Your task to perform on an android device: open sync settings in chrome Image 0: 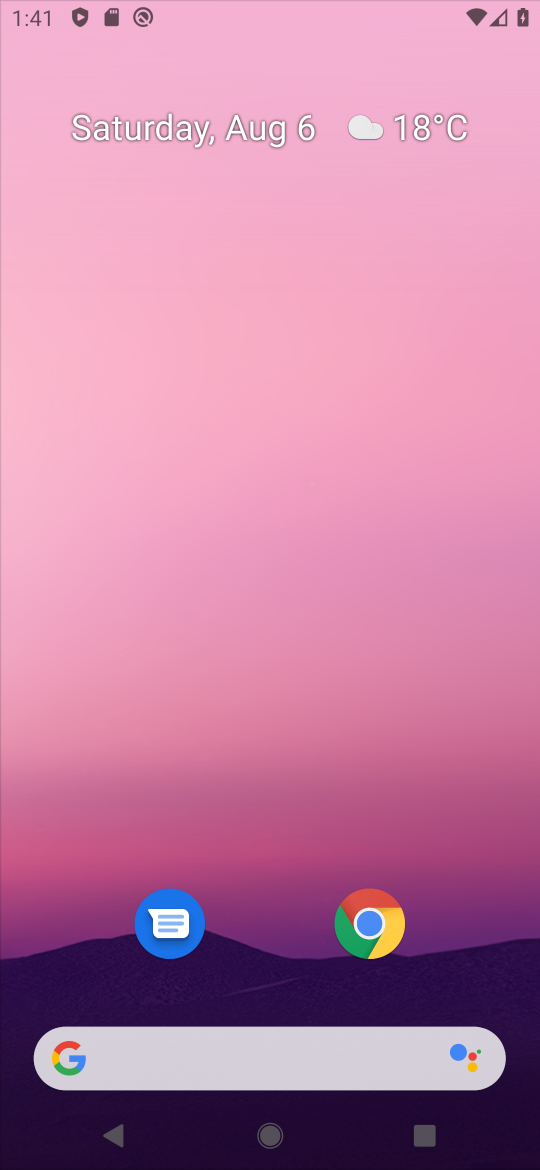
Step 0: click (293, 141)
Your task to perform on an android device: open sync settings in chrome Image 1: 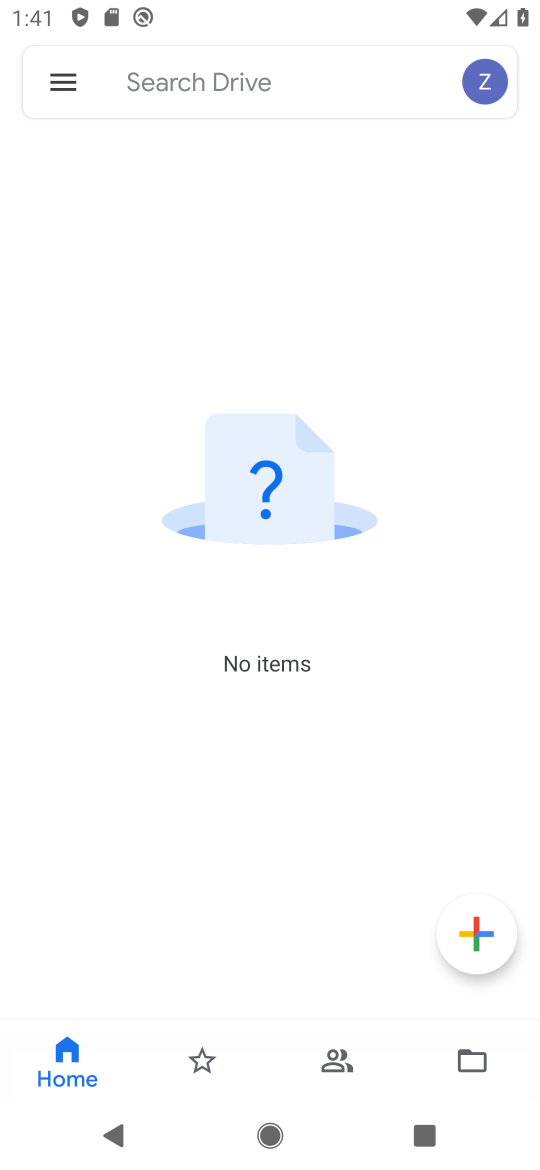
Step 1: drag from (276, 972) to (364, 310)
Your task to perform on an android device: open sync settings in chrome Image 2: 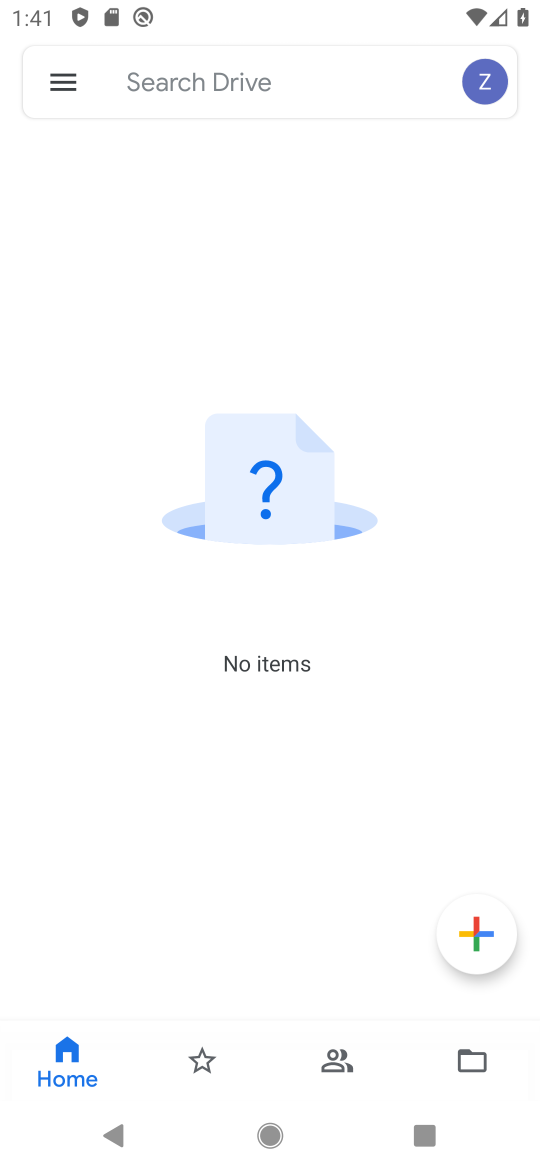
Step 2: press home button
Your task to perform on an android device: open sync settings in chrome Image 3: 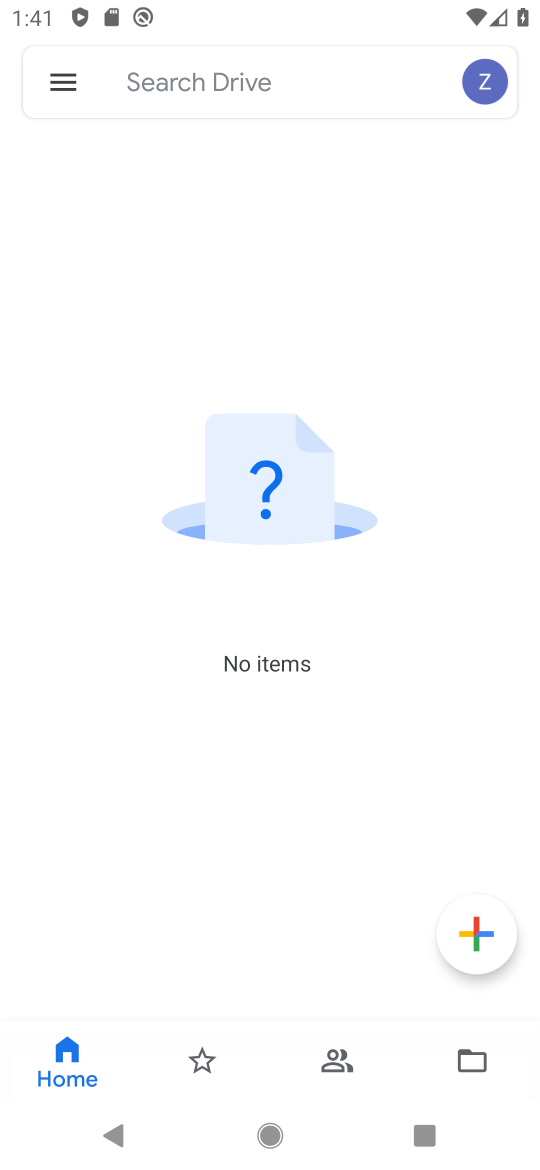
Step 3: drag from (260, 785) to (286, 134)
Your task to perform on an android device: open sync settings in chrome Image 4: 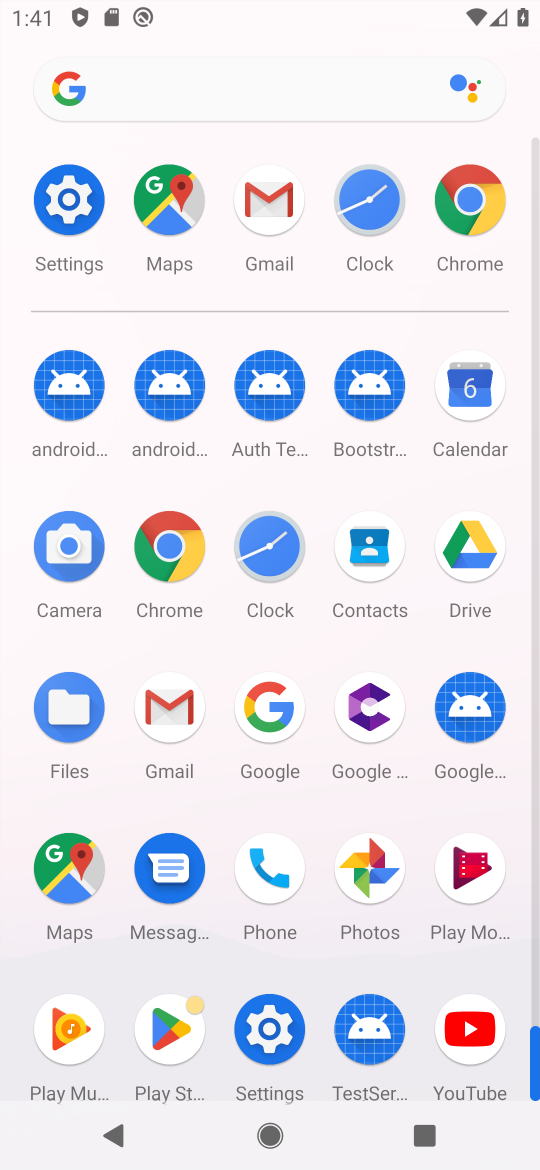
Step 4: click (183, 541)
Your task to perform on an android device: open sync settings in chrome Image 5: 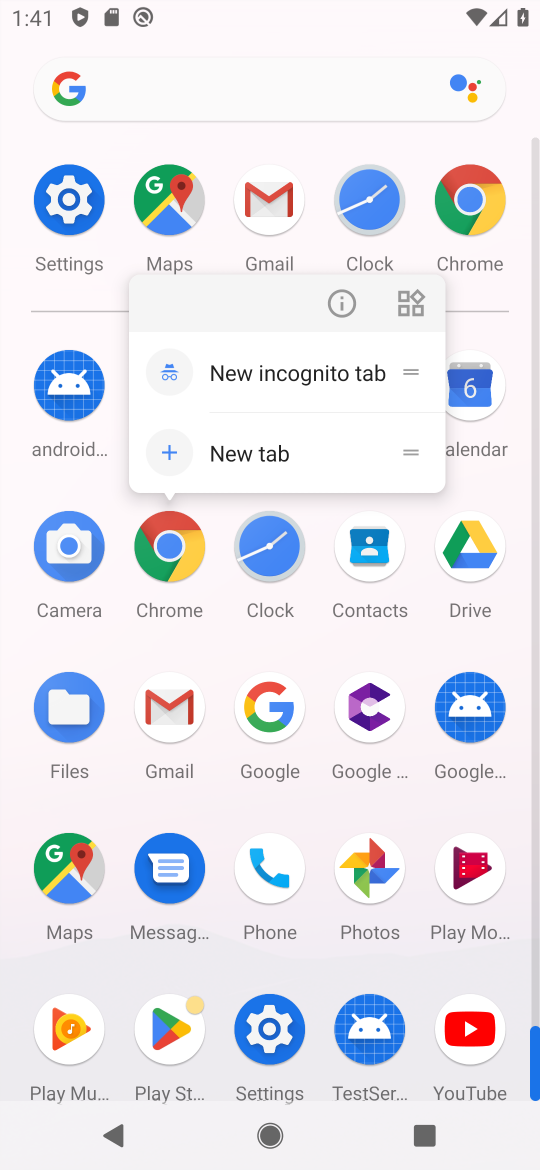
Step 5: click (342, 299)
Your task to perform on an android device: open sync settings in chrome Image 6: 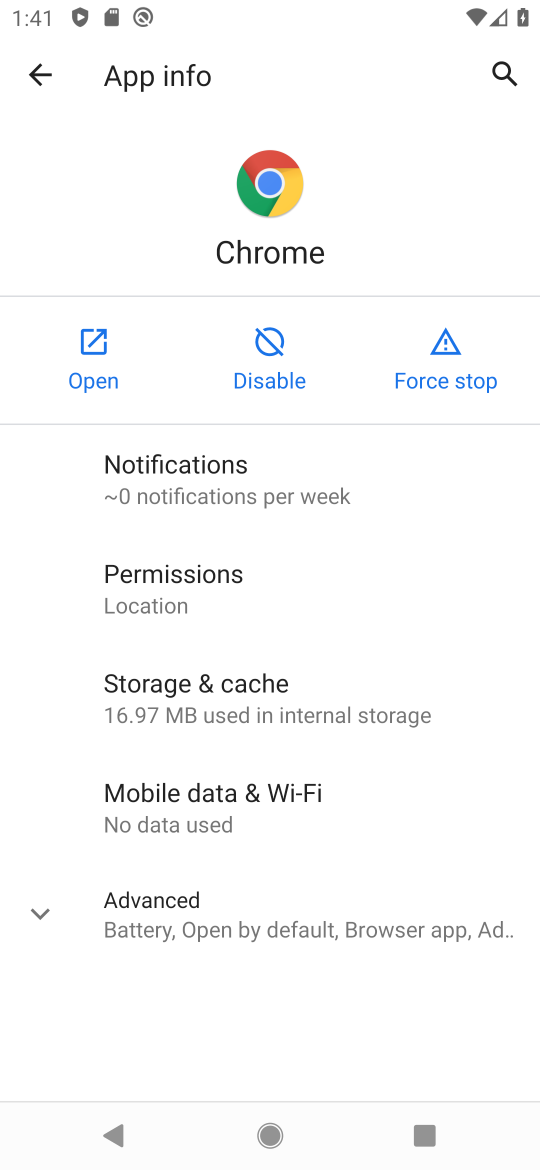
Step 6: click (116, 354)
Your task to perform on an android device: open sync settings in chrome Image 7: 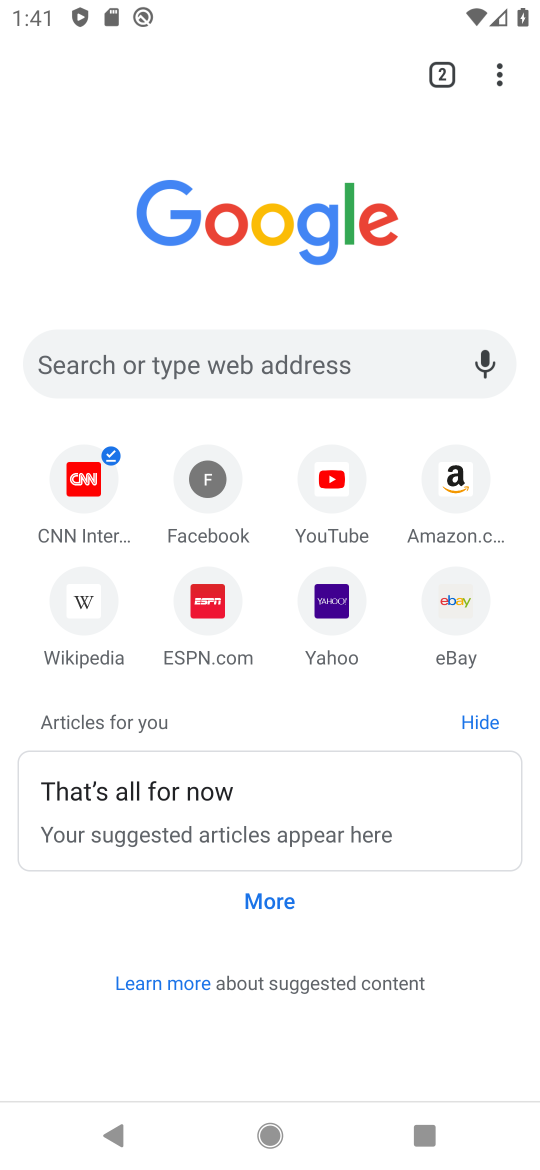
Step 7: drag from (496, 70) to (291, 705)
Your task to perform on an android device: open sync settings in chrome Image 8: 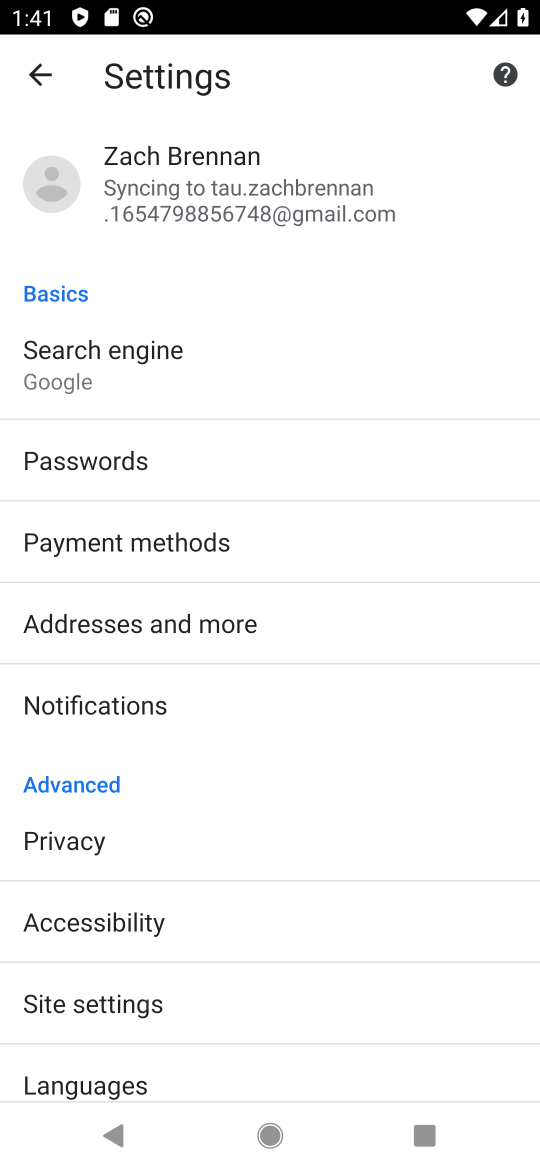
Step 8: drag from (314, 1024) to (283, 485)
Your task to perform on an android device: open sync settings in chrome Image 9: 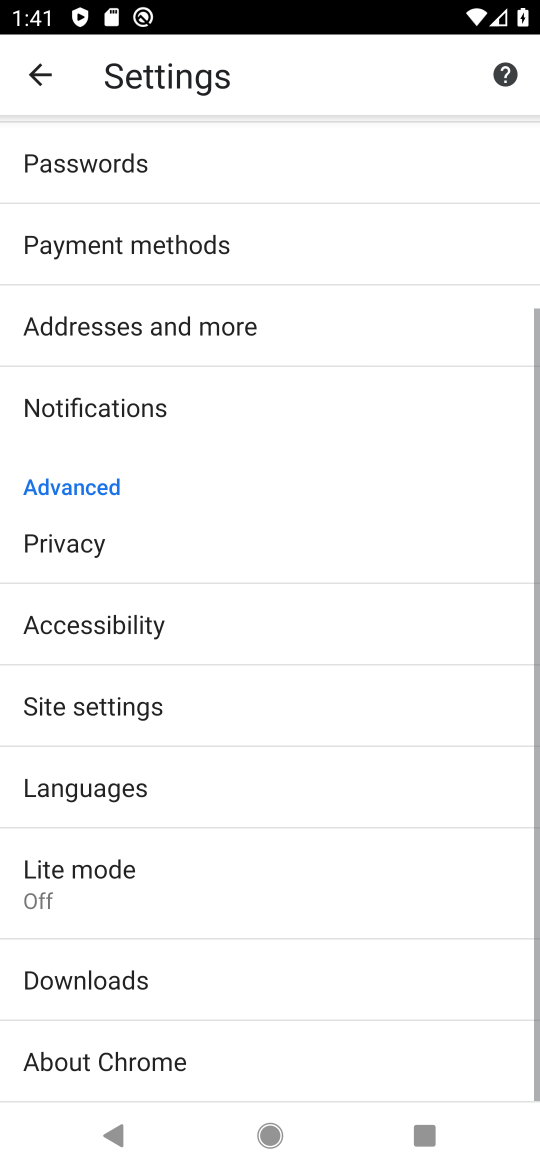
Step 9: drag from (251, 982) to (296, 356)
Your task to perform on an android device: open sync settings in chrome Image 10: 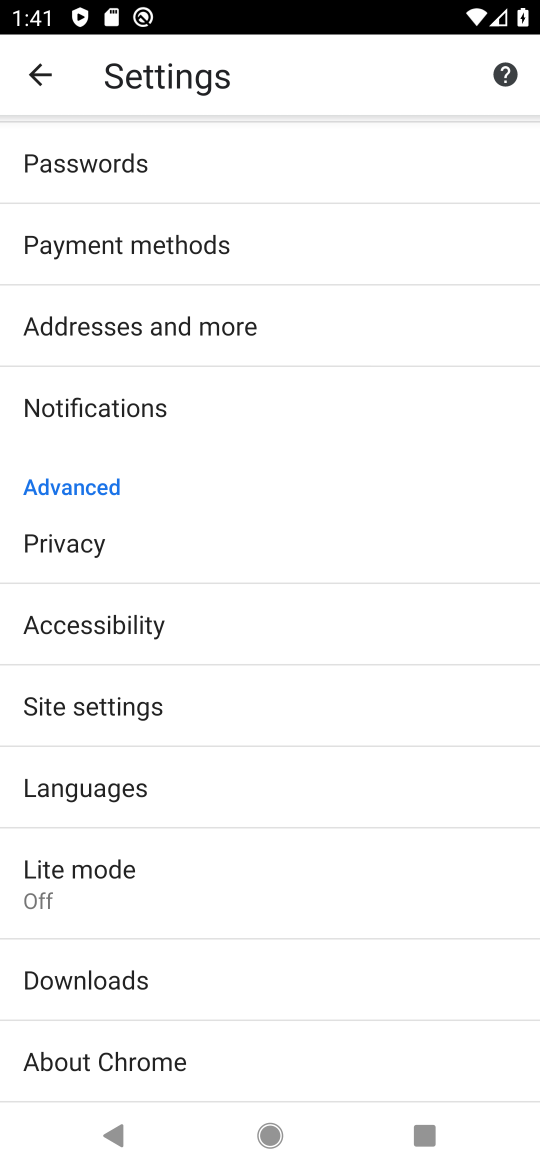
Step 10: click (221, 727)
Your task to perform on an android device: open sync settings in chrome Image 11: 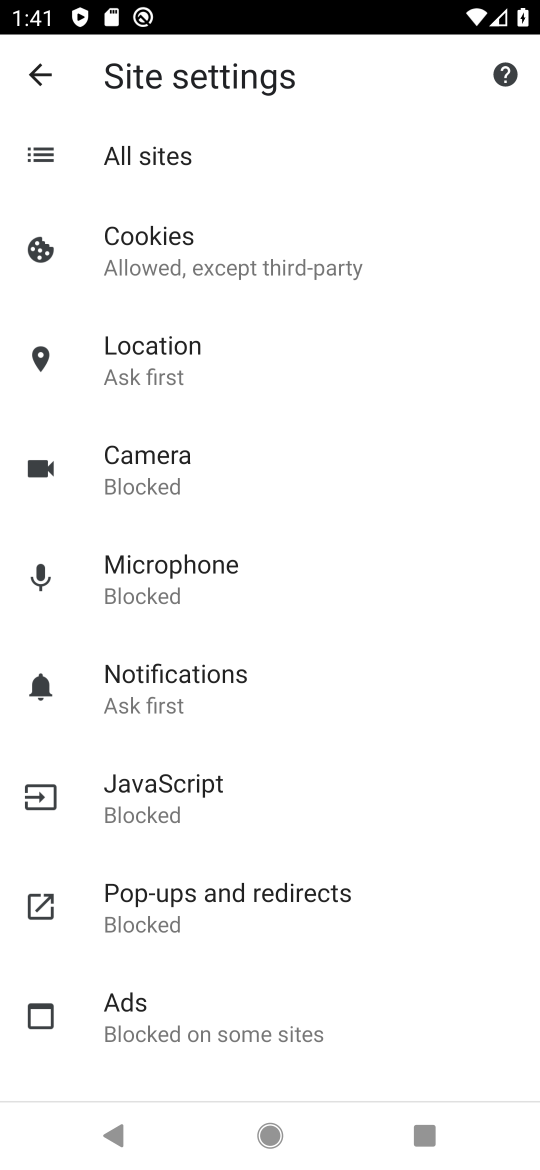
Step 11: drag from (279, 758) to (345, 144)
Your task to perform on an android device: open sync settings in chrome Image 12: 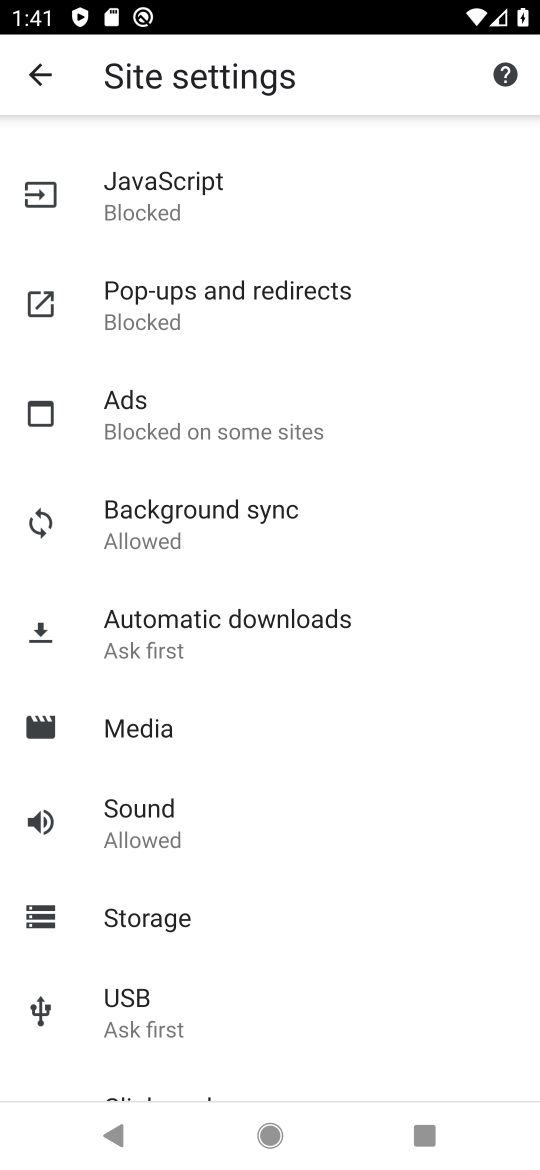
Step 12: click (291, 532)
Your task to perform on an android device: open sync settings in chrome Image 13: 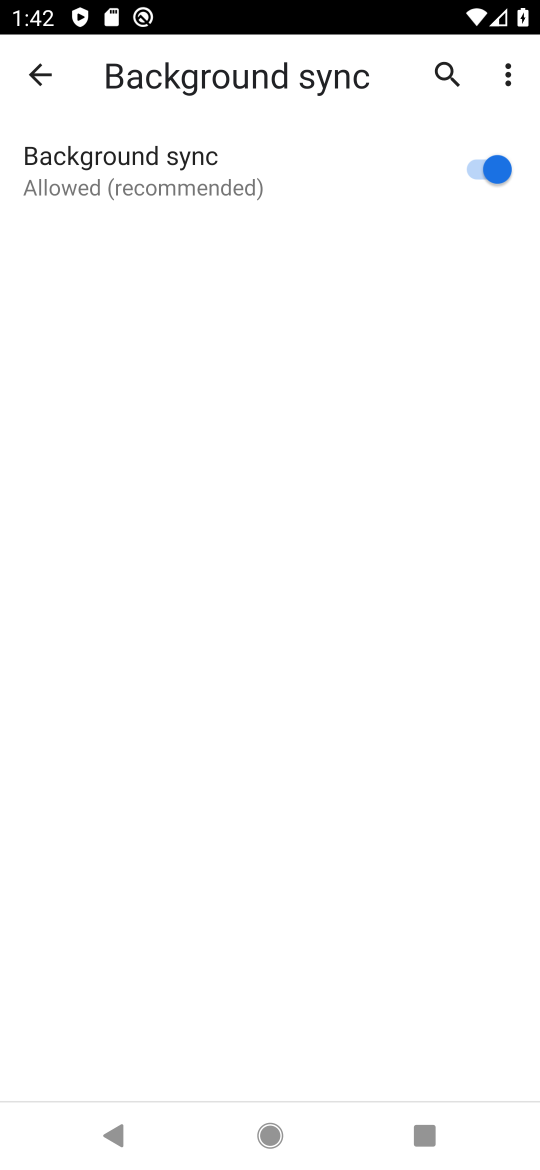
Step 13: task complete